Your task to perform on an android device: What's the weather today? Image 0: 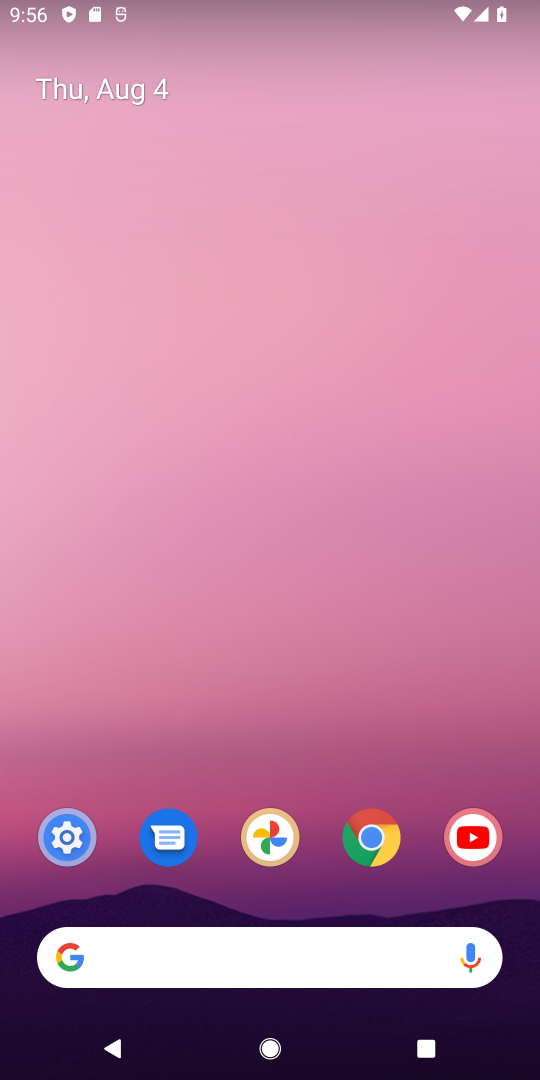
Step 0: click (205, 944)
Your task to perform on an android device: What's the weather today? Image 1: 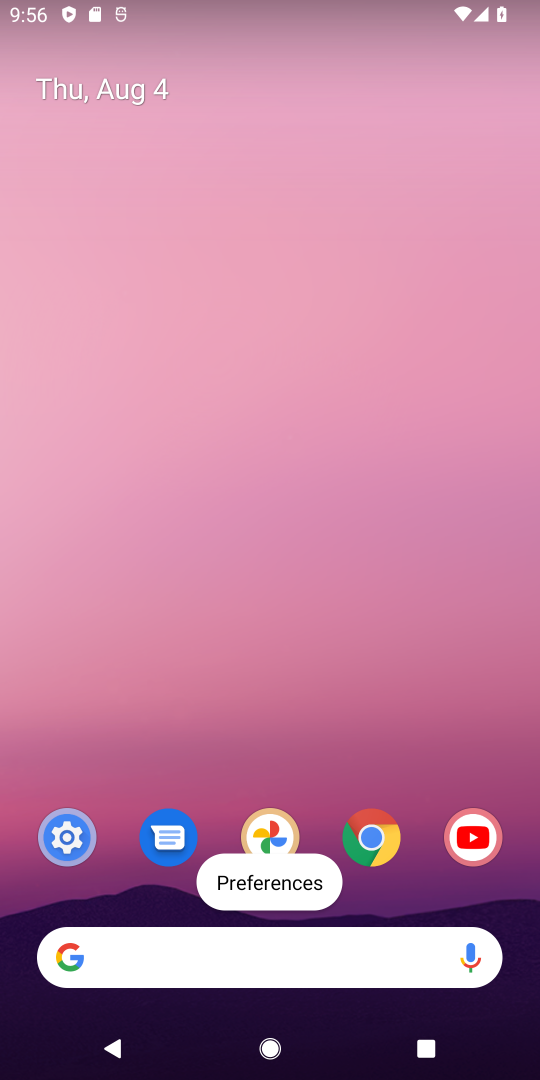
Step 1: click (272, 953)
Your task to perform on an android device: What's the weather today? Image 2: 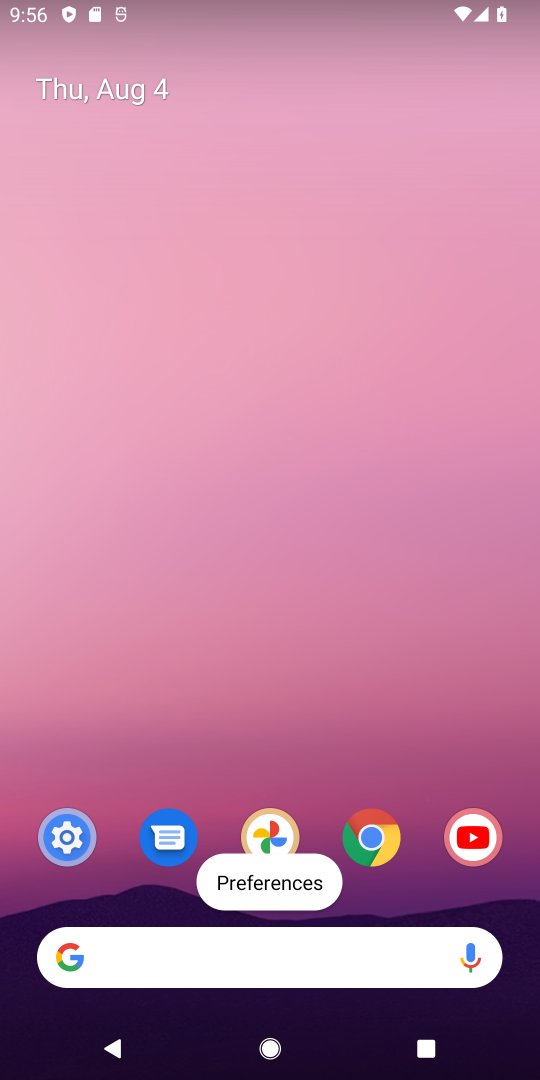
Step 2: click (239, 946)
Your task to perform on an android device: What's the weather today? Image 3: 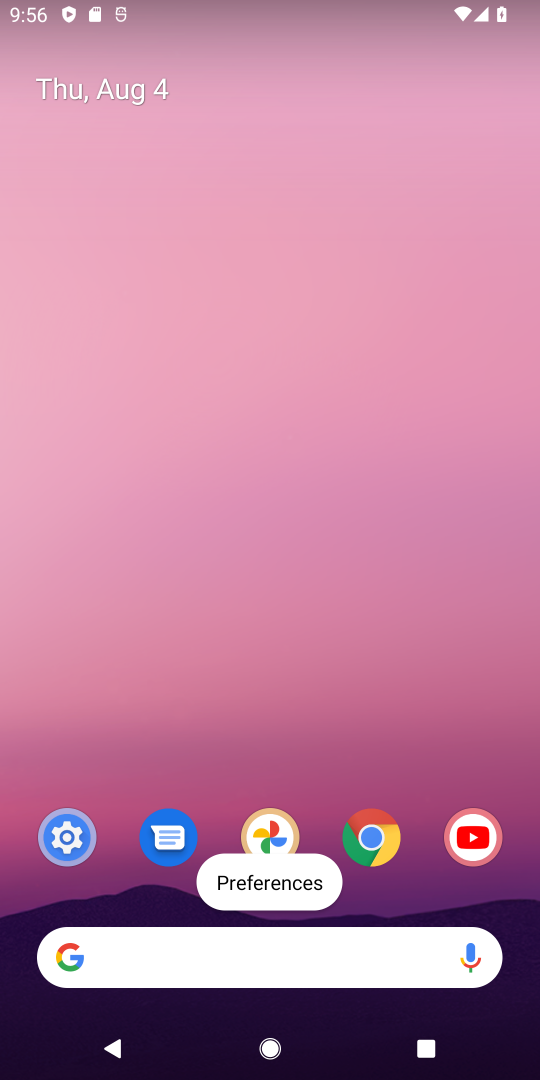
Step 3: click (192, 937)
Your task to perform on an android device: What's the weather today? Image 4: 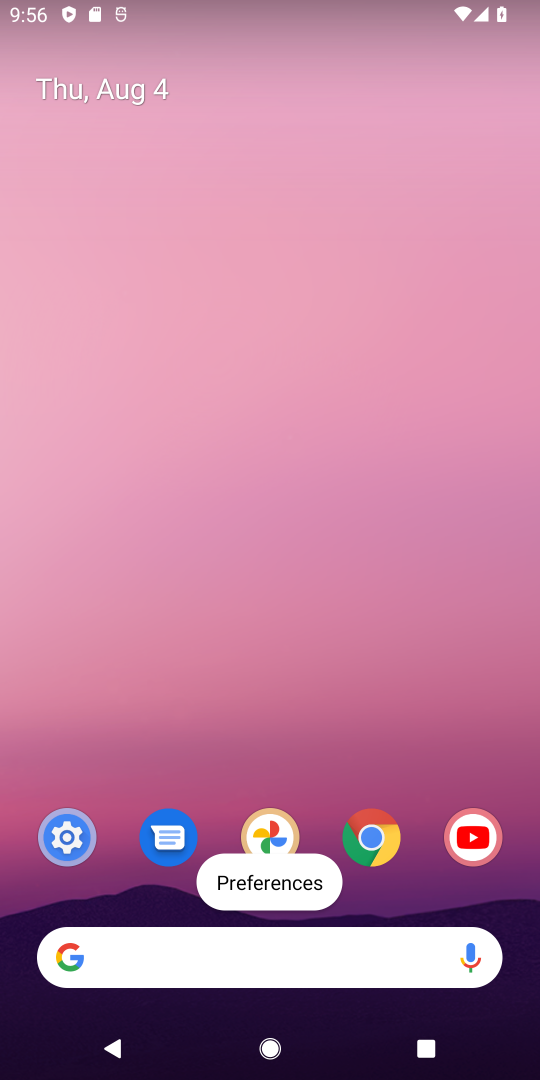
Step 4: click (156, 952)
Your task to perform on an android device: What's the weather today? Image 5: 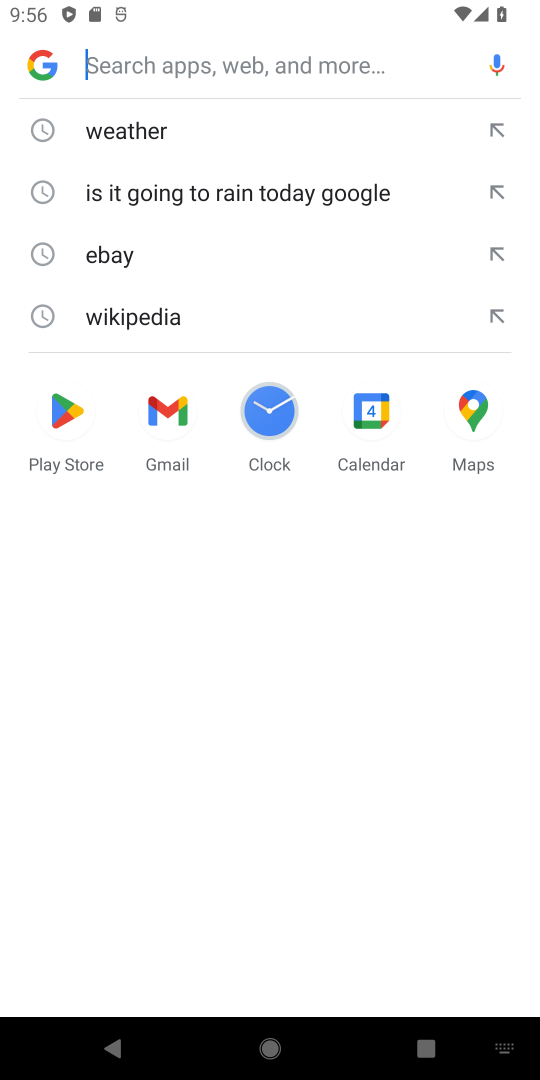
Step 5: click (161, 132)
Your task to perform on an android device: What's the weather today? Image 6: 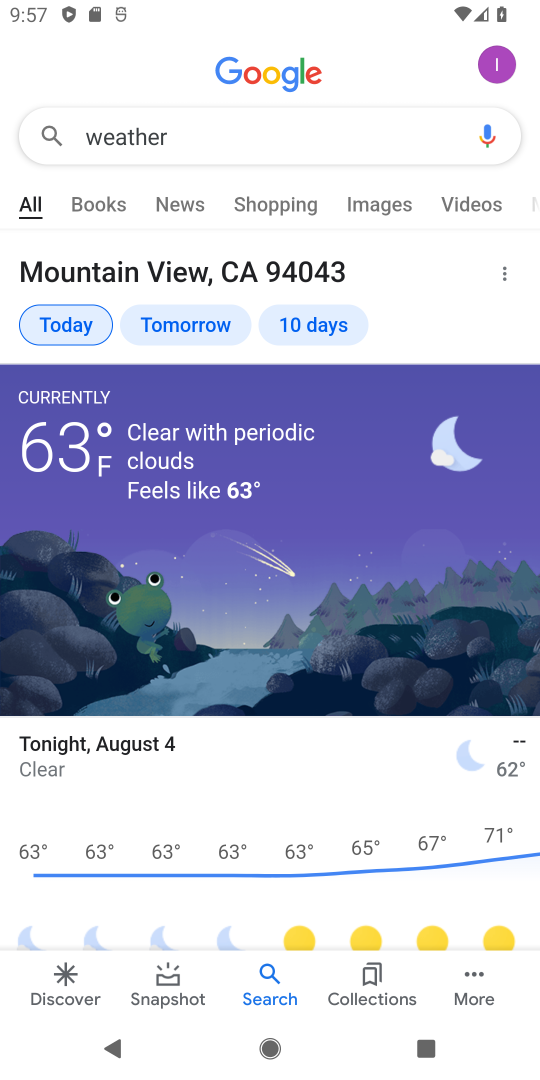
Step 6: task complete